Your task to perform on an android device: Open Google Chrome Image 0: 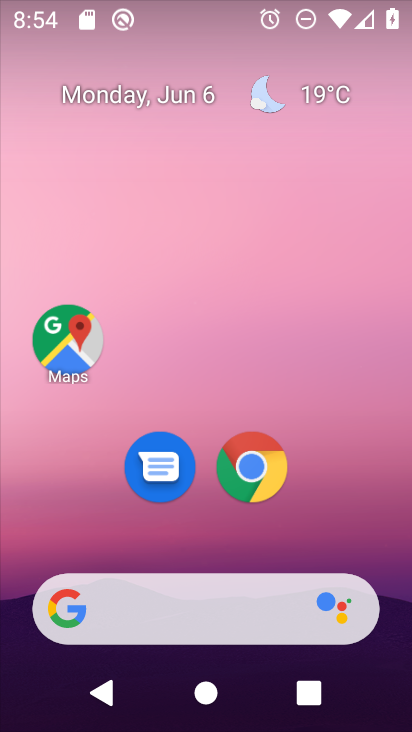
Step 0: drag from (369, 552) to (363, 168)
Your task to perform on an android device: Open Google Chrome Image 1: 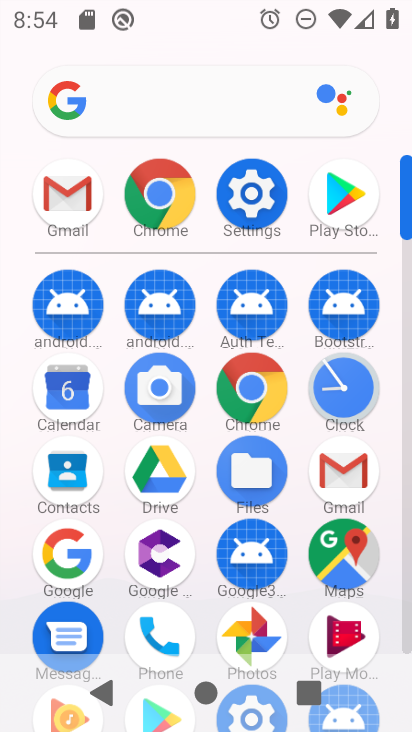
Step 1: click (260, 390)
Your task to perform on an android device: Open Google Chrome Image 2: 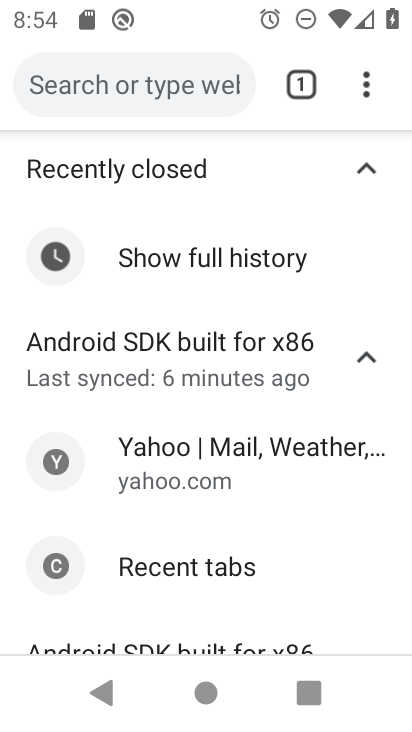
Step 2: task complete